Your task to perform on an android device: Search for sushi restaurants on Maps Image 0: 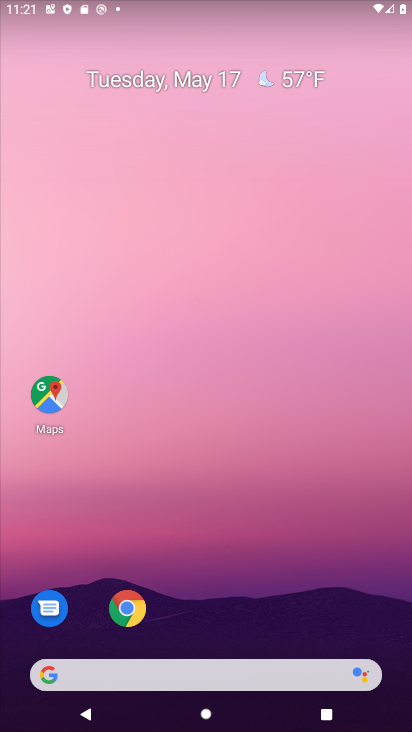
Step 0: drag from (205, 622) to (280, 27)
Your task to perform on an android device: Search for sushi restaurants on Maps Image 1: 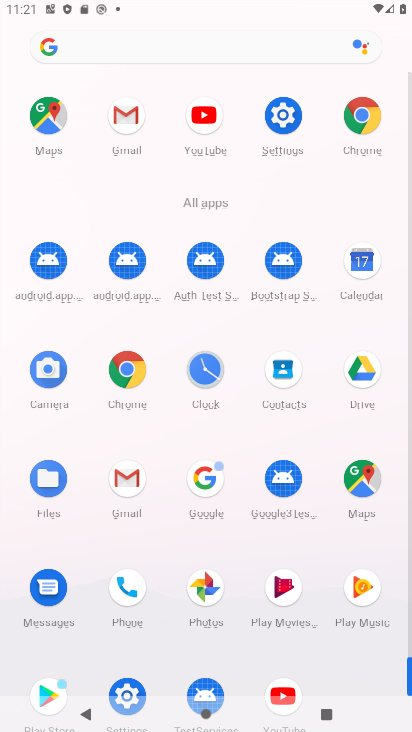
Step 1: click (354, 480)
Your task to perform on an android device: Search for sushi restaurants on Maps Image 2: 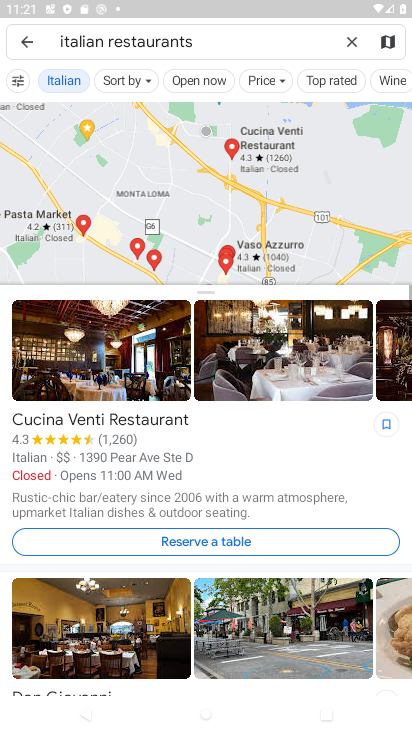
Step 2: click (346, 41)
Your task to perform on an android device: Search for sushi restaurants on Maps Image 3: 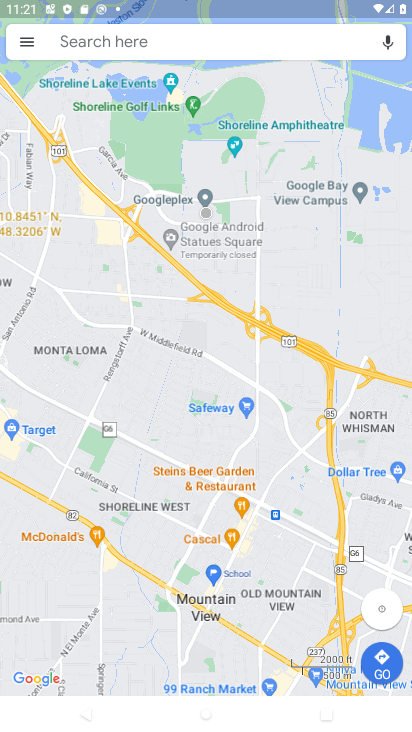
Step 3: click (197, 45)
Your task to perform on an android device: Search for sushi restaurants on Maps Image 4: 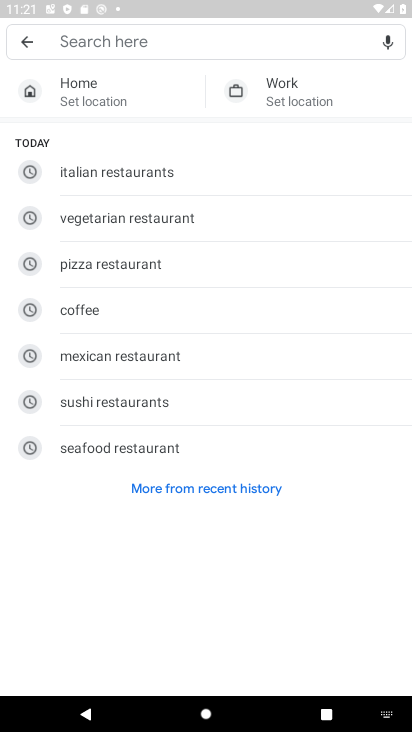
Step 4: type "sushi restaurants"
Your task to perform on an android device: Search for sushi restaurants on Maps Image 5: 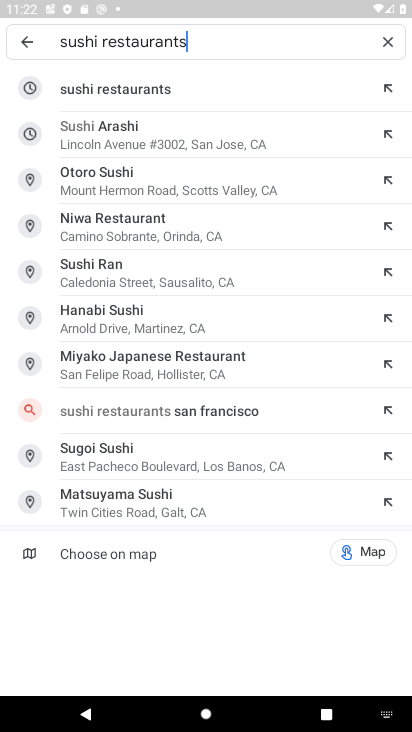
Step 5: click (150, 80)
Your task to perform on an android device: Search for sushi restaurants on Maps Image 6: 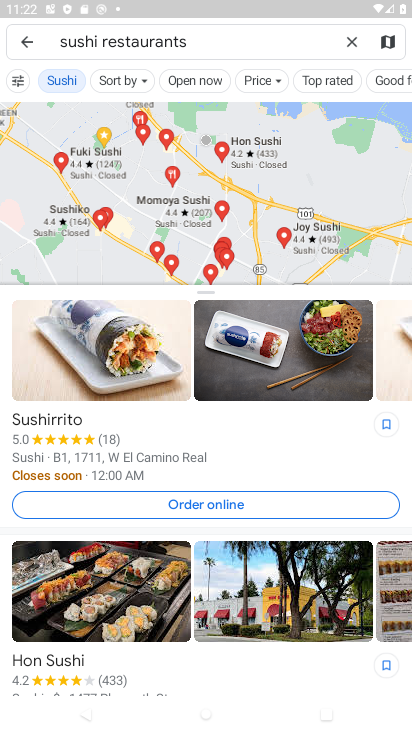
Step 6: task complete